Your task to perform on an android device: When is my next meeting? Image 0: 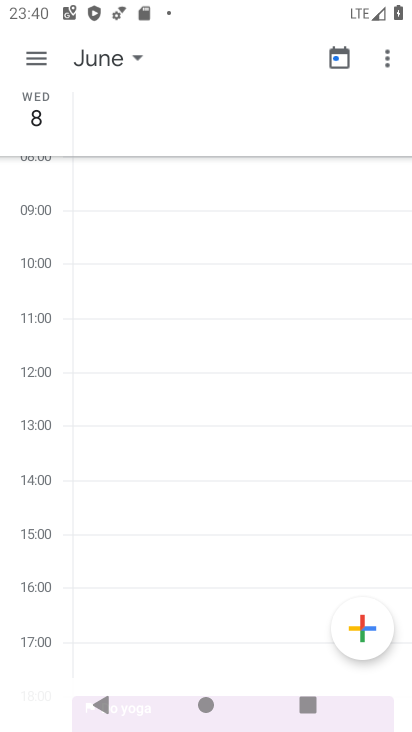
Step 0: drag from (204, 504) to (283, 104)
Your task to perform on an android device: When is my next meeting? Image 1: 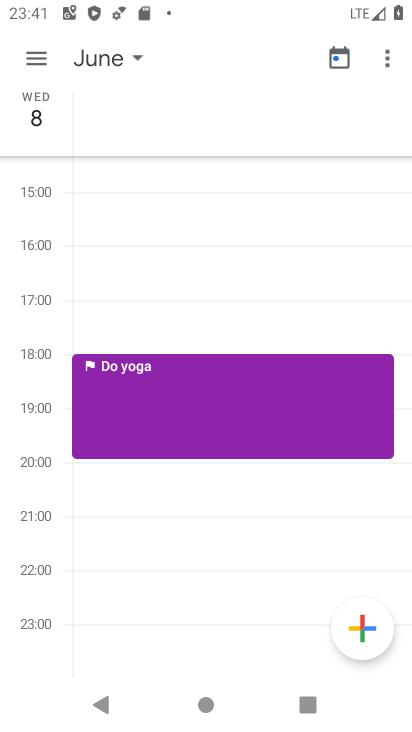
Step 1: click (101, 67)
Your task to perform on an android device: When is my next meeting? Image 2: 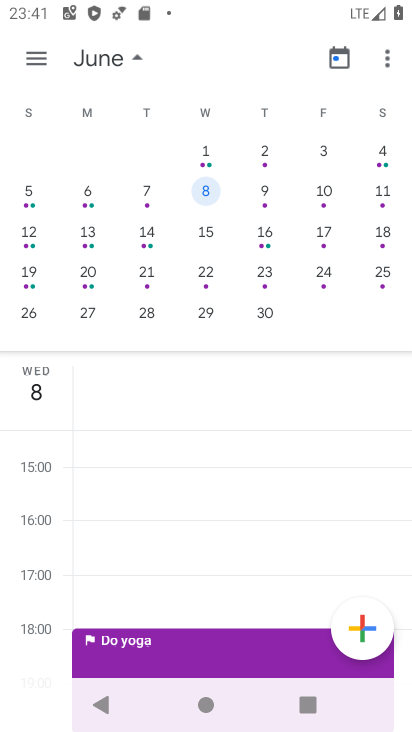
Step 2: drag from (62, 224) to (384, 232)
Your task to perform on an android device: When is my next meeting? Image 3: 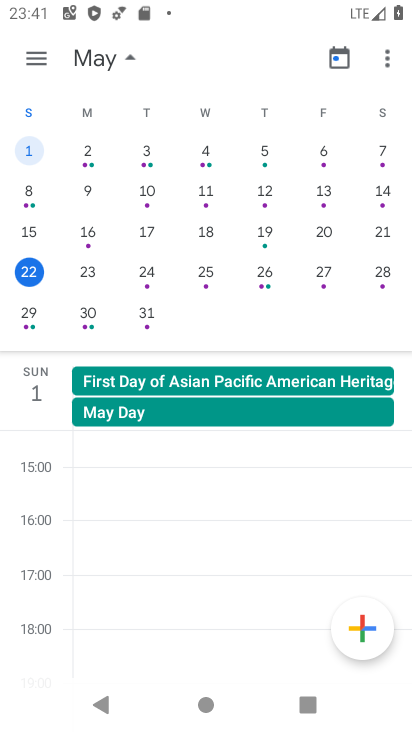
Step 3: click (87, 269)
Your task to perform on an android device: When is my next meeting? Image 4: 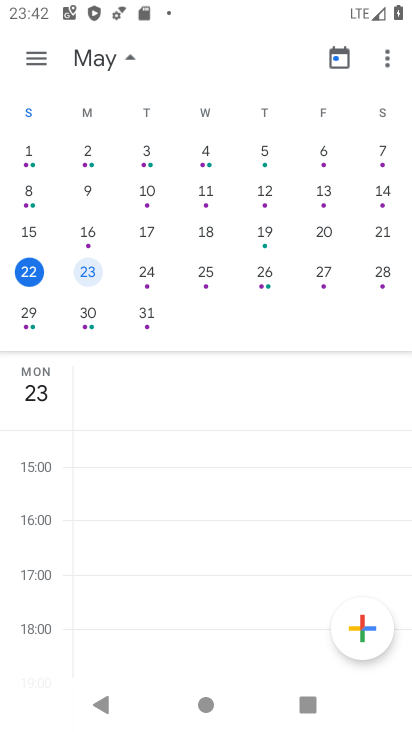
Step 4: drag from (221, 322) to (312, 112)
Your task to perform on an android device: When is my next meeting? Image 5: 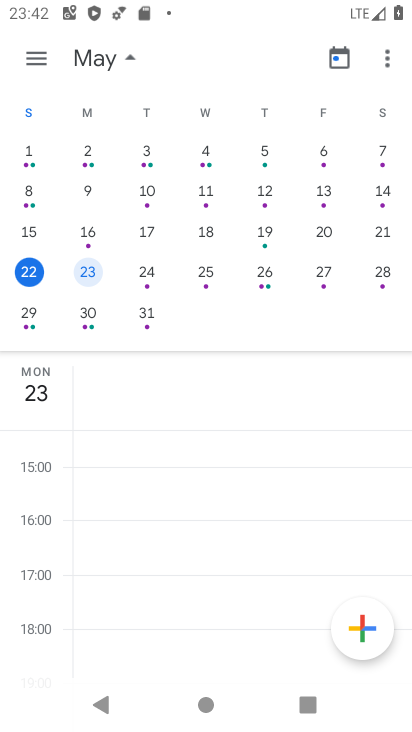
Step 5: click (43, 269)
Your task to perform on an android device: When is my next meeting? Image 6: 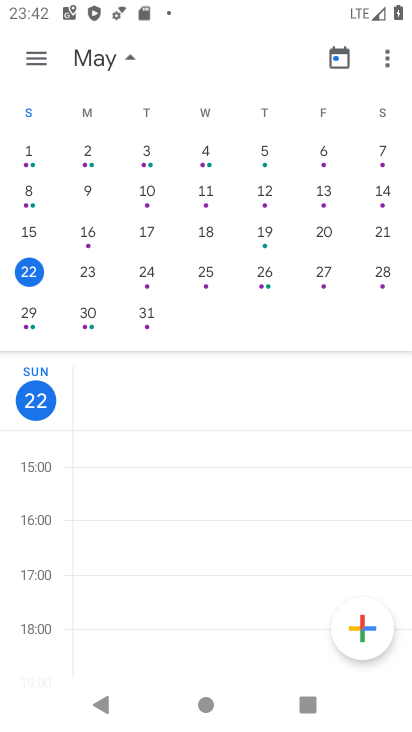
Step 6: task complete